Your task to perform on an android device: search for starred emails in the gmail app Image 0: 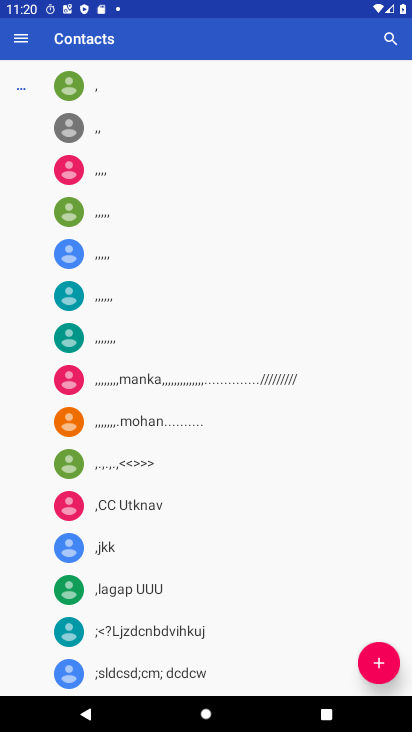
Step 0: press home button
Your task to perform on an android device: search for starred emails in the gmail app Image 1: 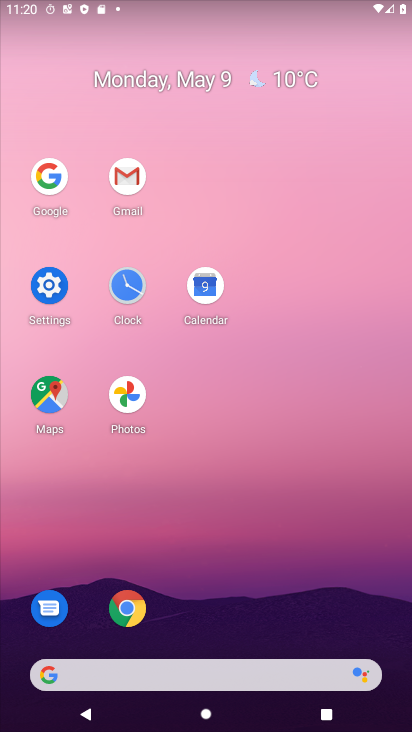
Step 1: click (130, 177)
Your task to perform on an android device: search for starred emails in the gmail app Image 2: 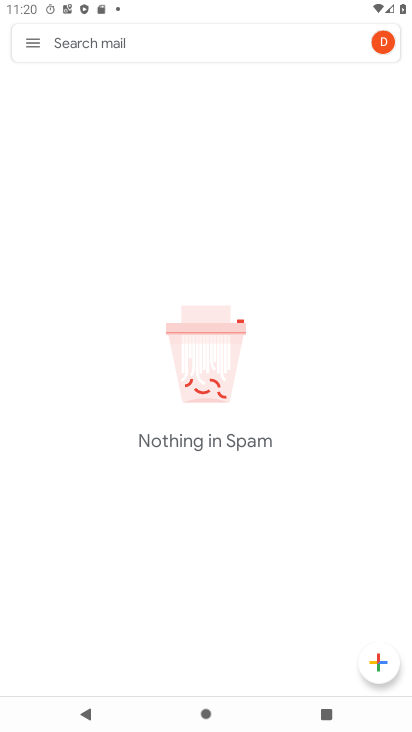
Step 2: click (25, 46)
Your task to perform on an android device: search for starred emails in the gmail app Image 3: 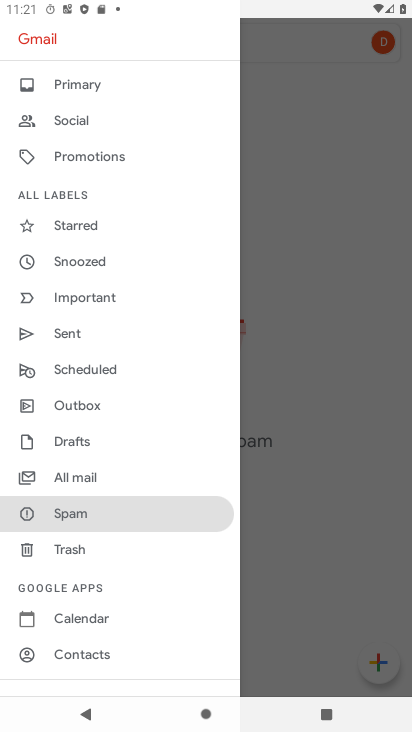
Step 3: click (116, 228)
Your task to perform on an android device: search for starred emails in the gmail app Image 4: 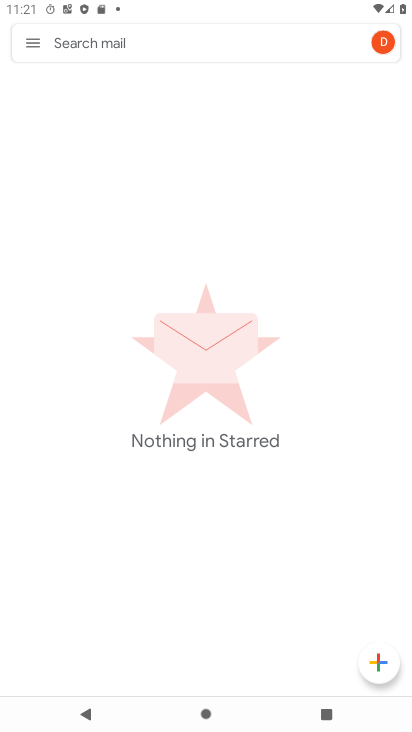
Step 4: task complete